Your task to perform on an android device: check out phone information Image 0: 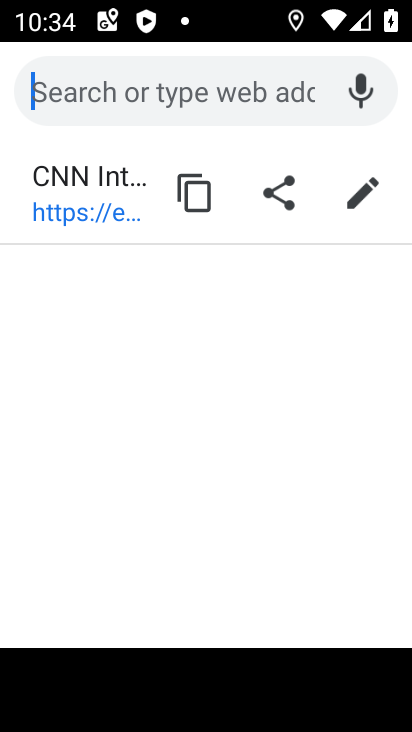
Step 0: press home button
Your task to perform on an android device: check out phone information Image 1: 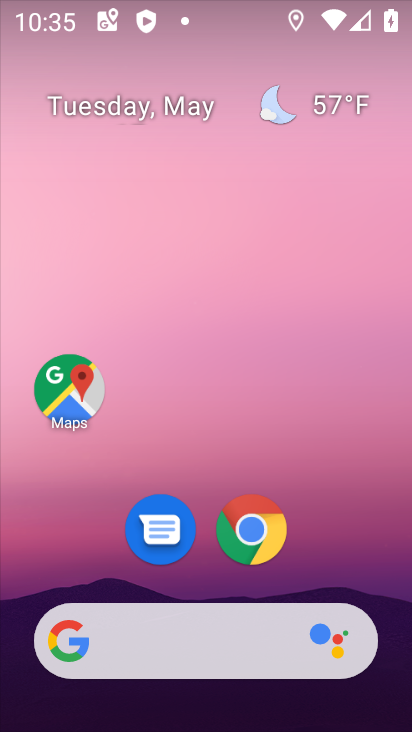
Step 1: drag from (204, 590) to (190, 87)
Your task to perform on an android device: check out phone information Image 2: 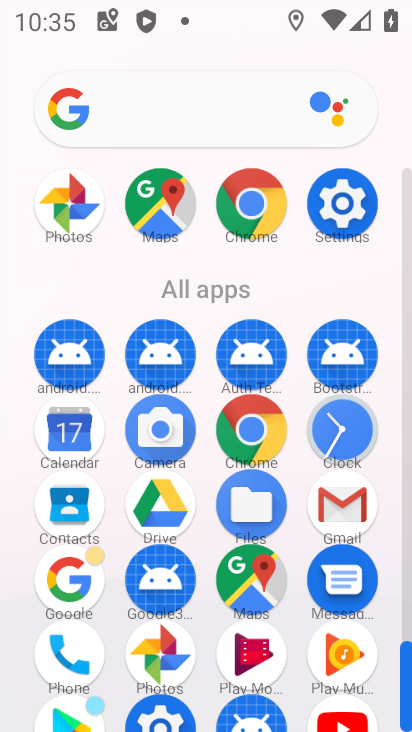
Step 2: click (362, 176)
Your task to perform on an android device: check out phone information Image 3: 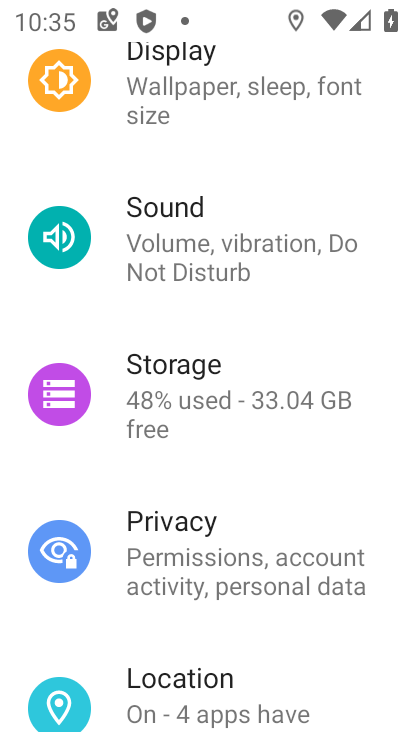
Step 3: drag from (213, 590) to (238, 62)
Your task to perform on an android device: check out phone information Image 4: 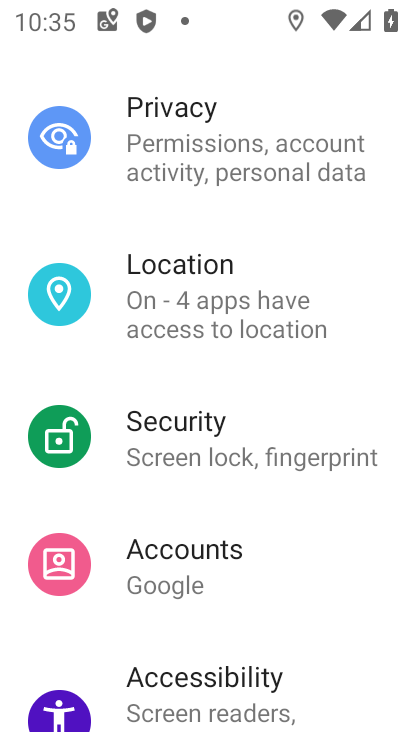
Step 4: drag from (107, 605) to (265, 90)
Your task to perform on an android device: check out phone information Image 5: 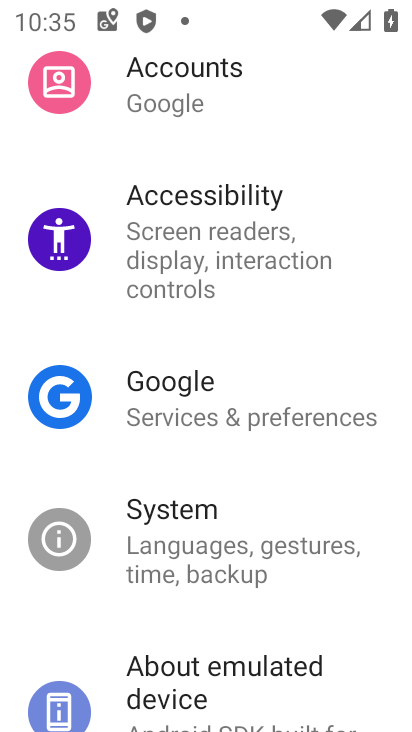
Step 5: drag from (118, 681) to (246, 274)
Your task to perform on an android device: check out phone information Image 6: 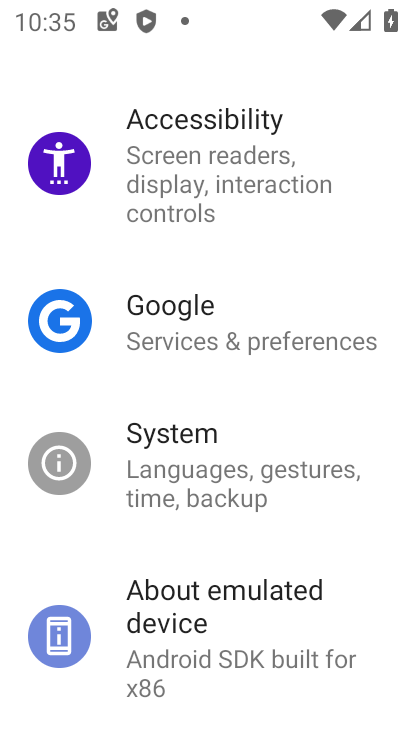
Step 6: click (209, 688)
Your task to perform on an android device: check out phone information Image 7: 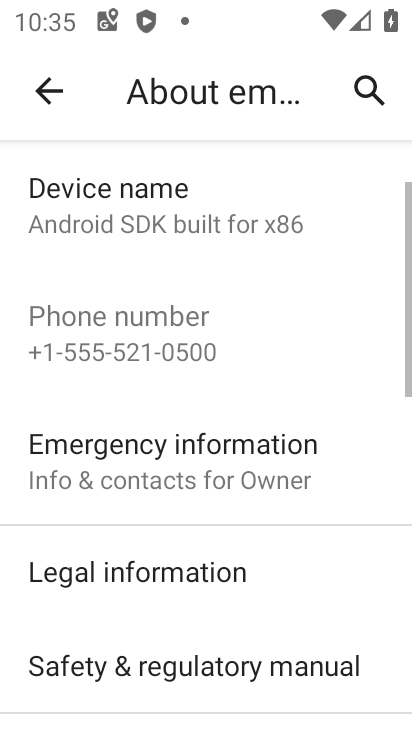
Step 7: task complete